Your task to perform on an android device: Empty the shopping cart on target.com. Add "bose soundlink" to the cart on target.com, then select checkout. Image 0: 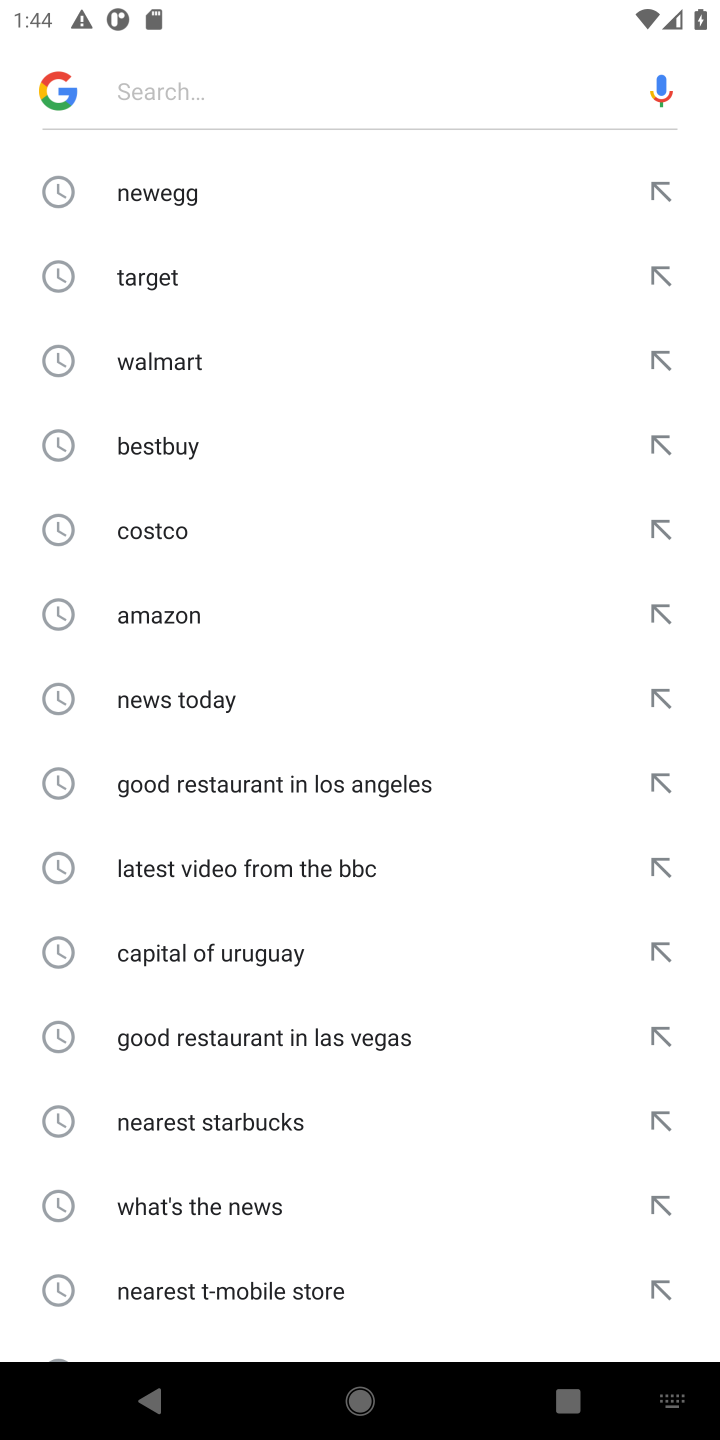
Step 0: press home button
Your task to perform on an android device: Empty the shopping cart on target.com. Add "bose soundlink" to the cart on target.com, then select checkout. Image 1: 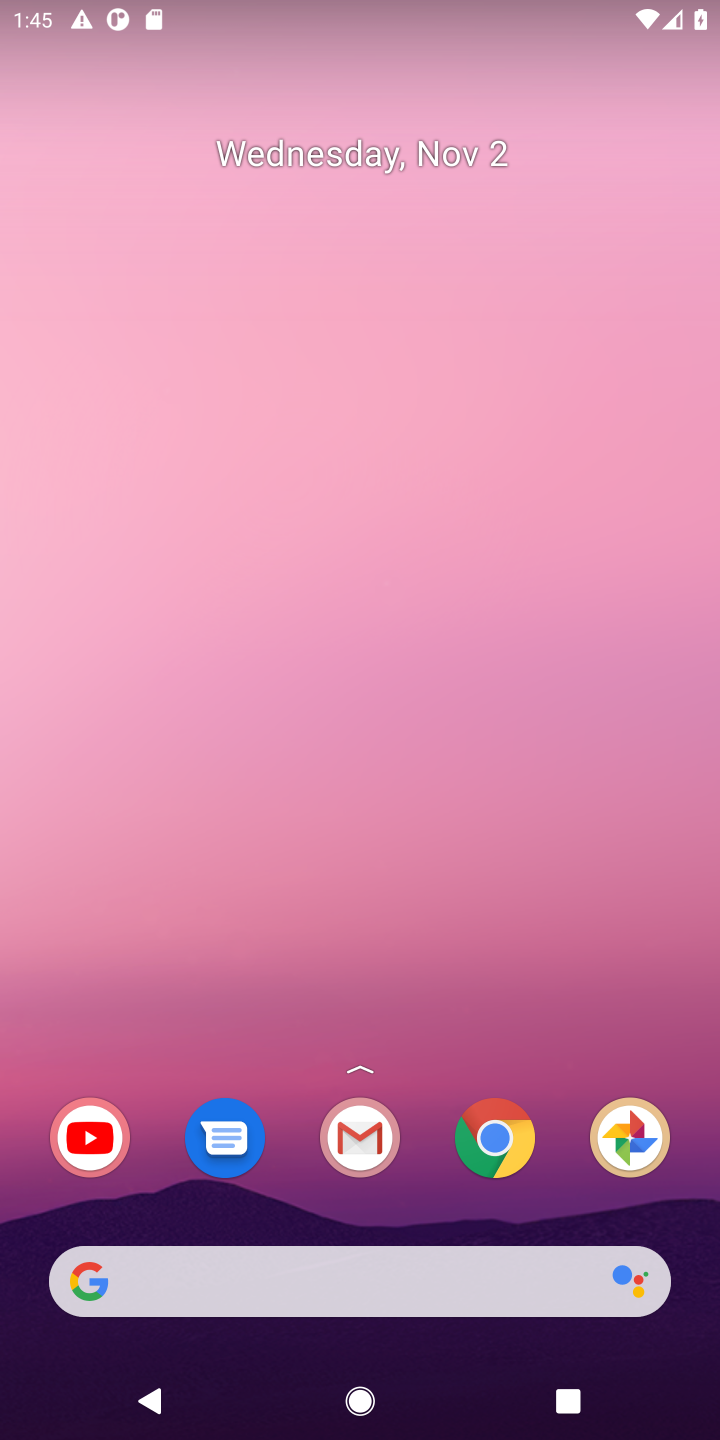
Step 1: click (154, 1277)
Your task to perform on an android device: Empty the shopping cart on target.com. Add "bose soundlink" to the cart on target.com, then select checkout. Image 2: 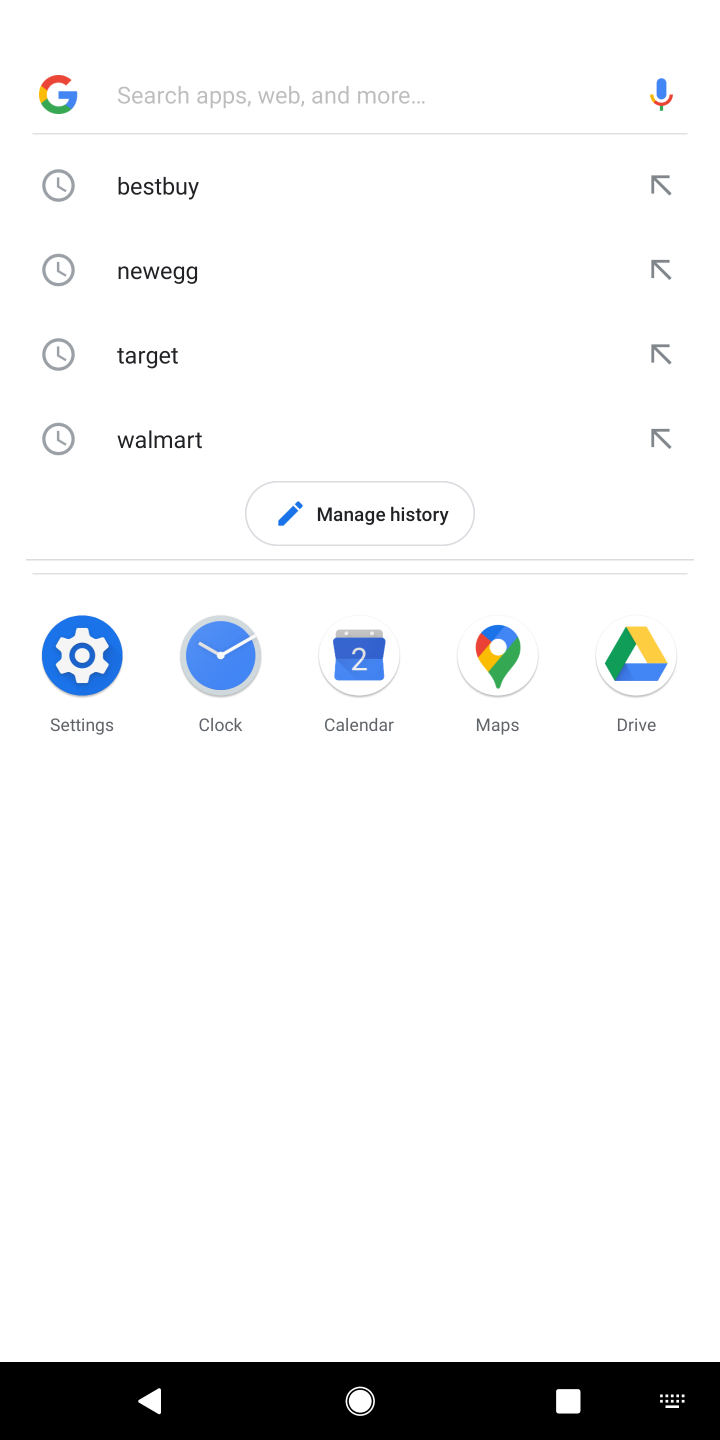
Step 2: type "target.com"
Your task to perform on an android device: Empty the shopping cart on target.com. Add "bose soundlink" to the cart on target.com, then select checkout. Image 3: 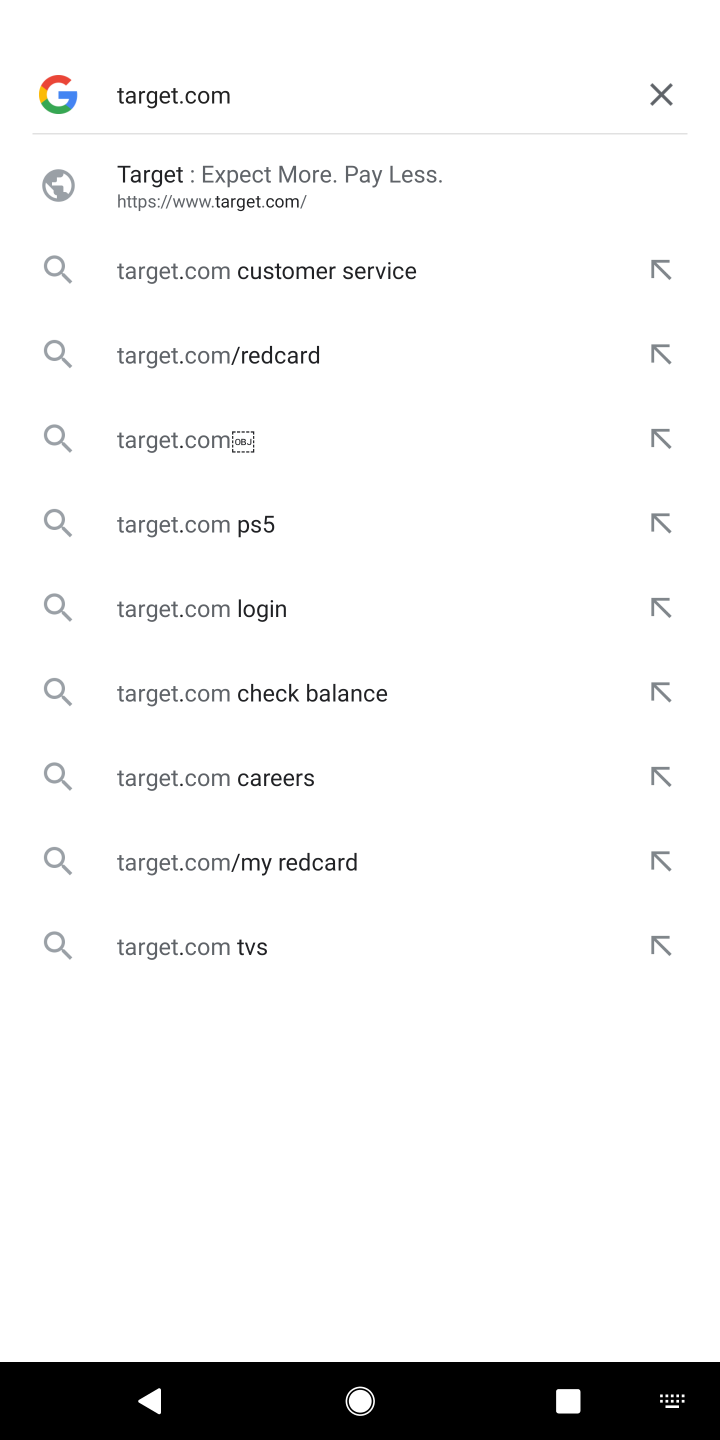
Step 3: press enter
Your task to perform on an android device: Empty the shopping cart on target.com. Add "bose soundlink" to the cart on target.com, then select checkout. Image 4: 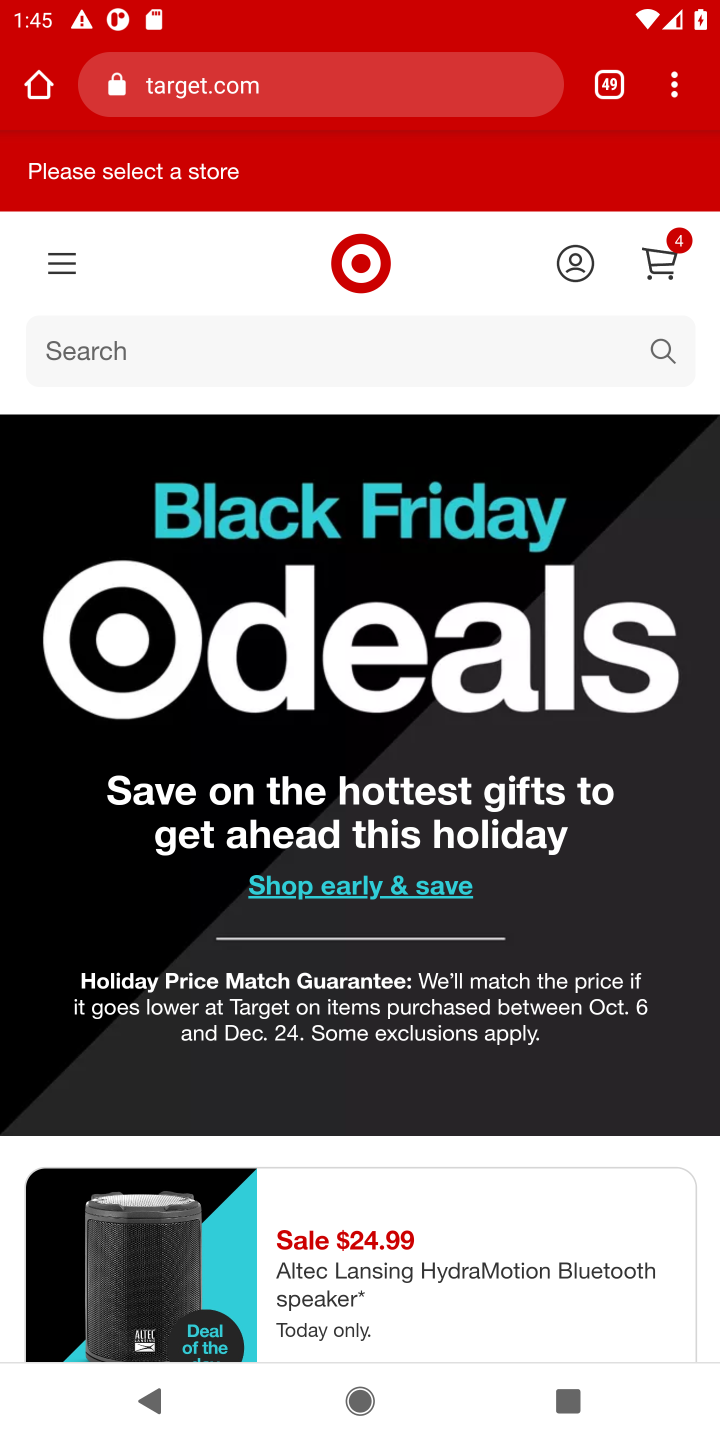
Step 4: click (662, 244)
Your task to perform on an android device: Empty the shopping cart on target.com. Add "bose soundlink" to the cart on target.com, then select checkout. Image 5: 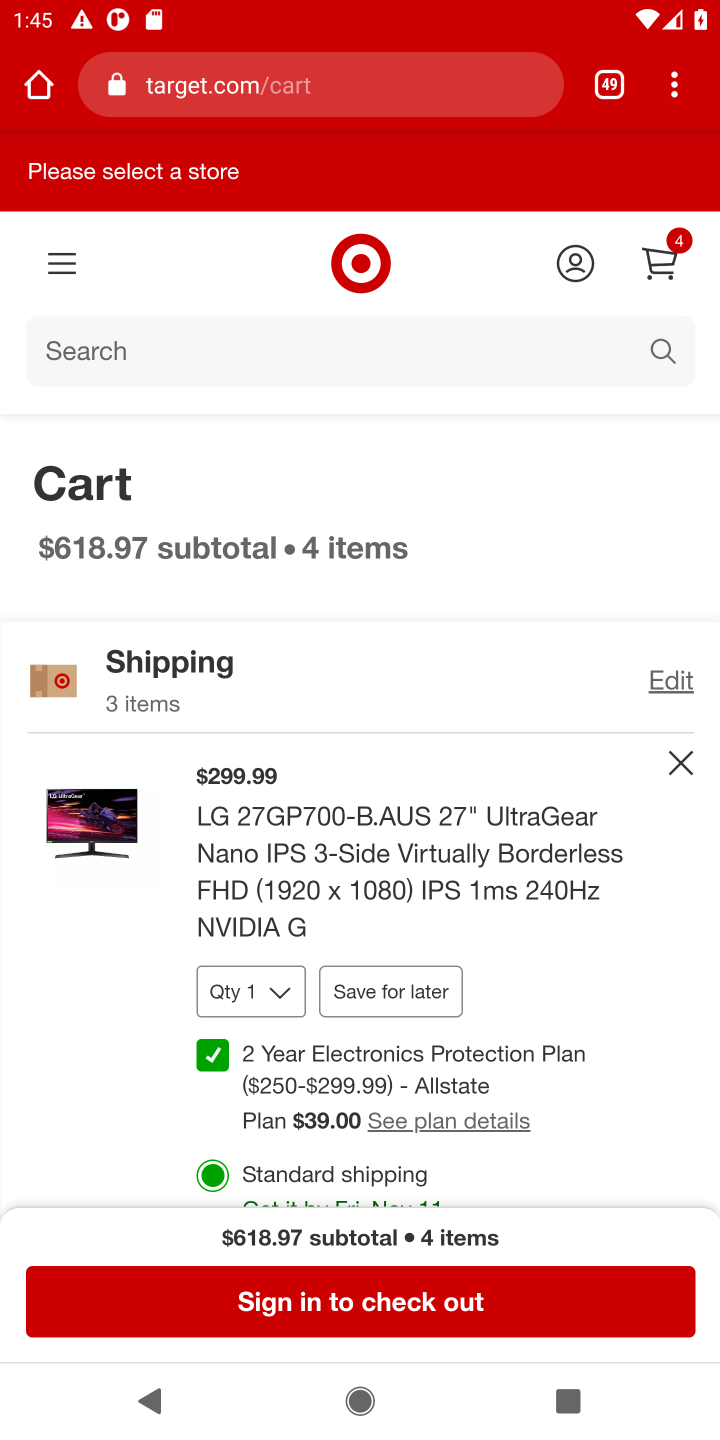
Step 5: click (680, 771)
Your task to perform on an android device: Empty the shopping cart on target.com. Add "bose soundlink" to the cart on target.com, then select checkout. Image 6: 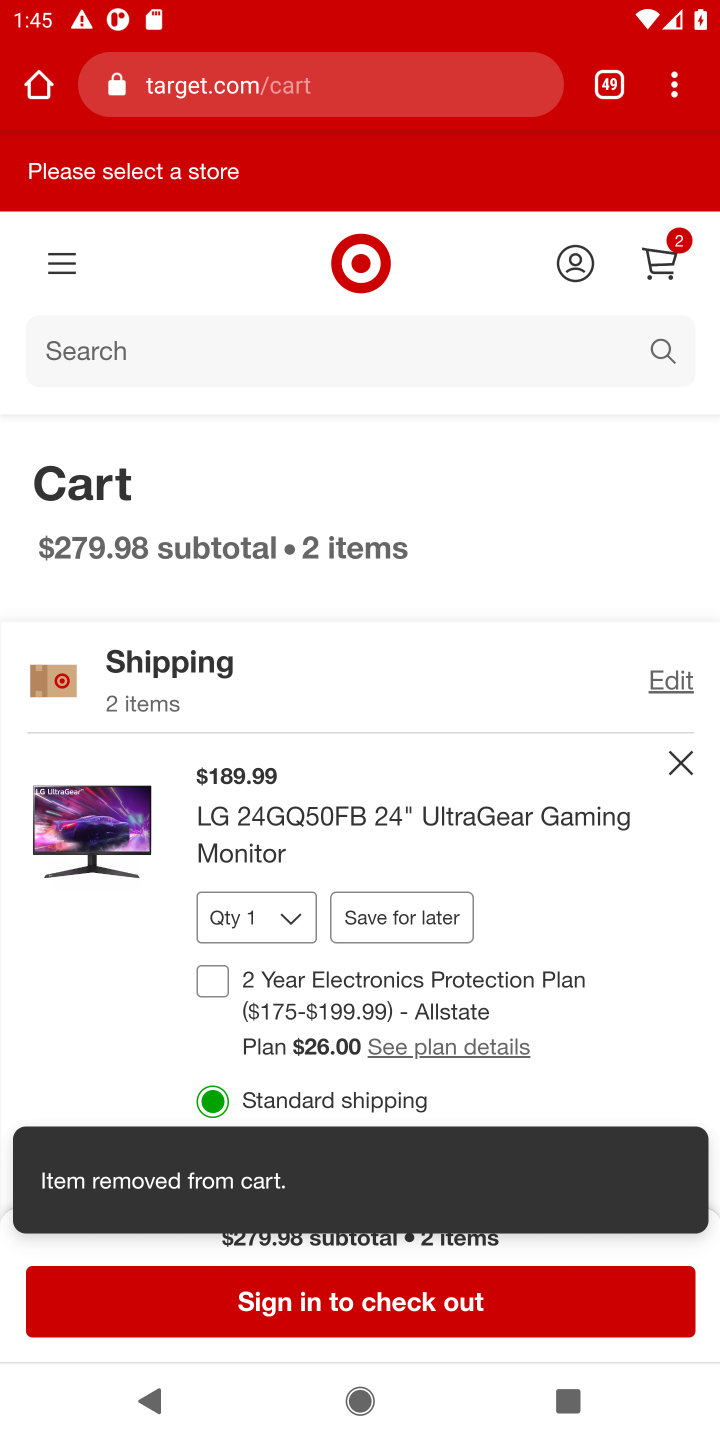
Step 6: click (680, 771)
Your task to perform on an android device: Empty the shopping cart on target.com. Add "bose soundlink" to the cart on target.com, then select checkout. Image 7: 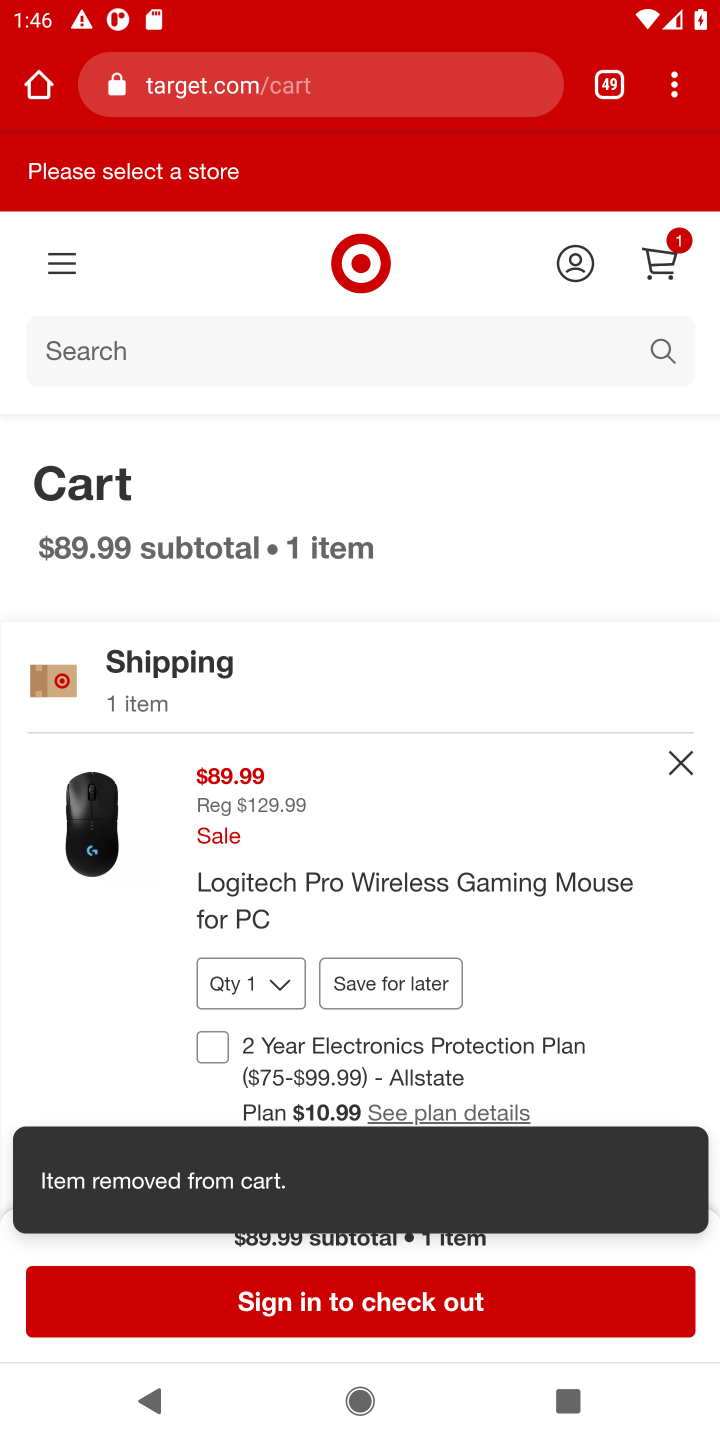
Step 7: click (679, 754)
Your task to perform on an android device: Empty the shopping cart on target.com. Add "bose soundlink" to the cart on target.com, then select checkout. Image 8: 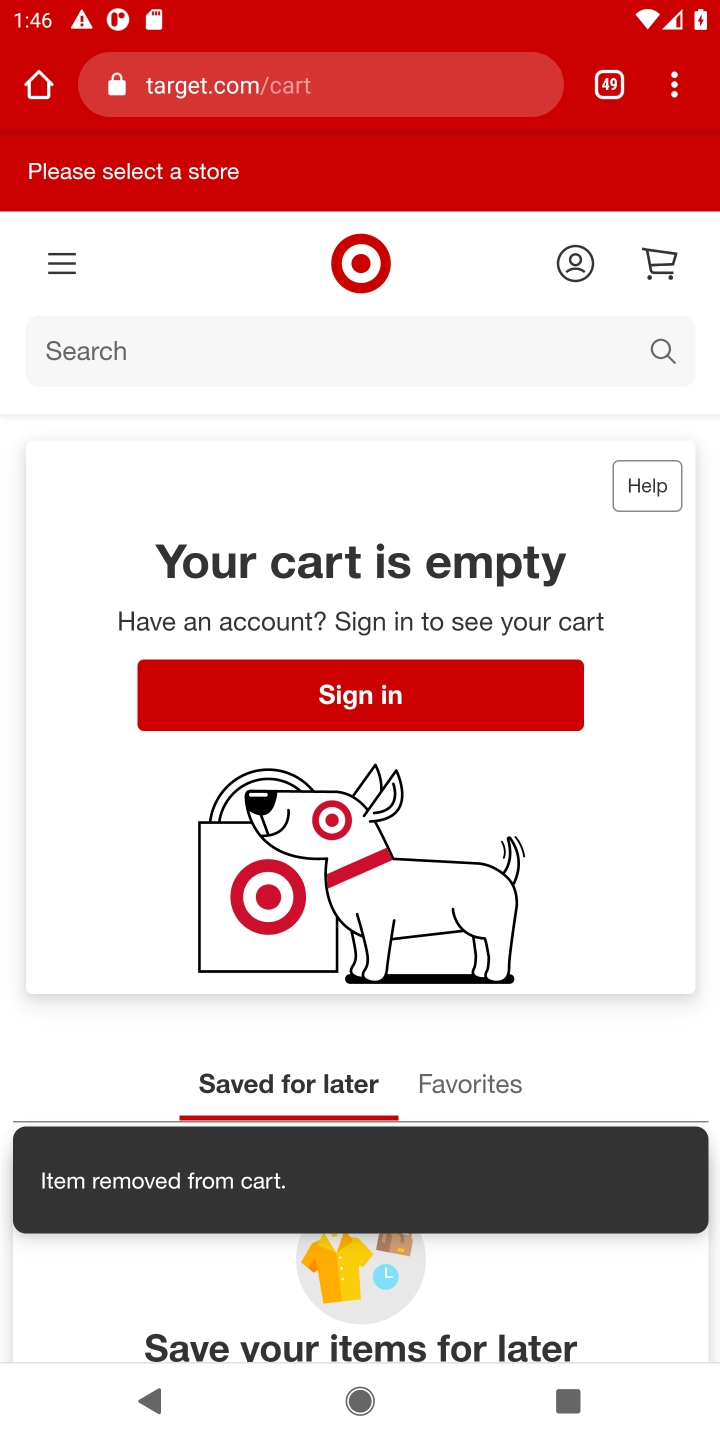
Step 8: click (109, 346)
Your task to perform on an android device: Empty the shopping cart on target.com. Add "bose soundlink" to the cart on target.com, then select checkout. Image 9: 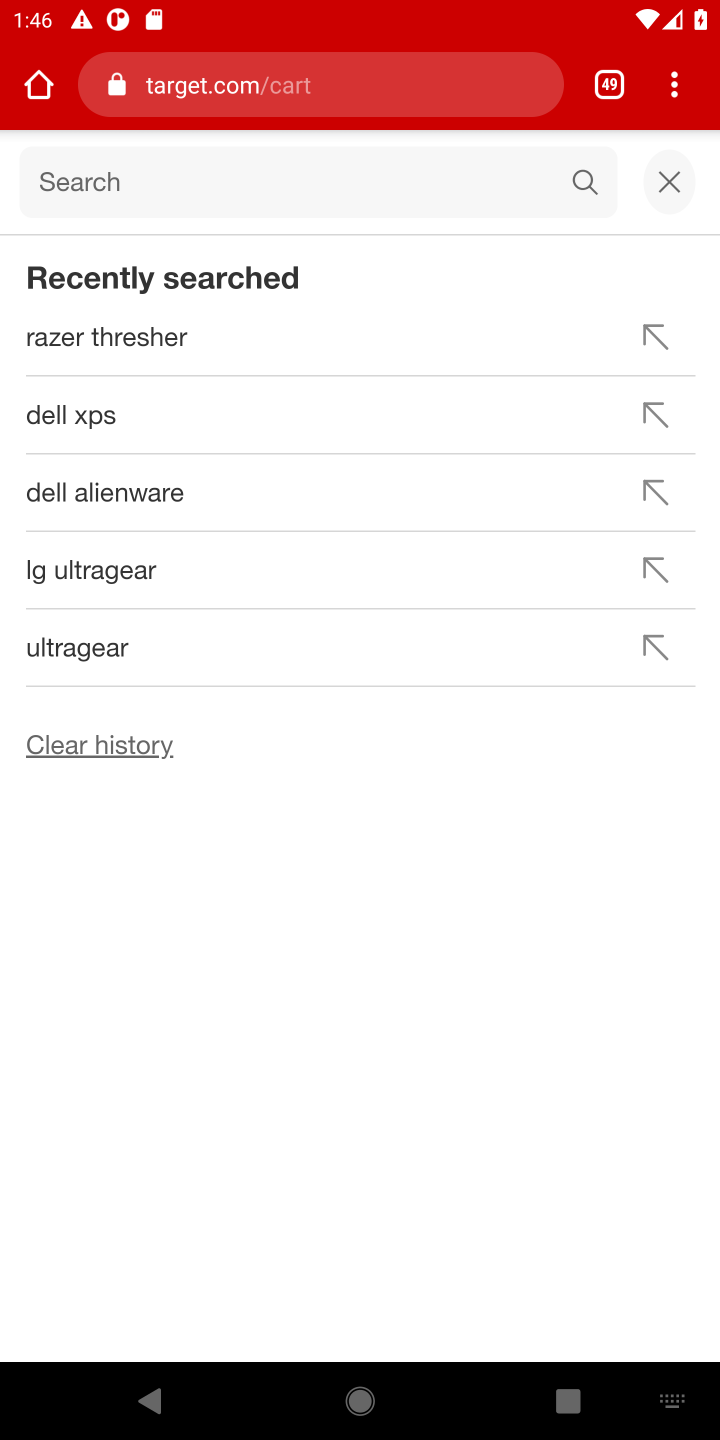
Step 9: type "bose soundlink"
Your task to perform on an android device: Empty the shopping cart on target.com. Add "bose soundlink" to the cart on target.com, then select checkout. Image 10: 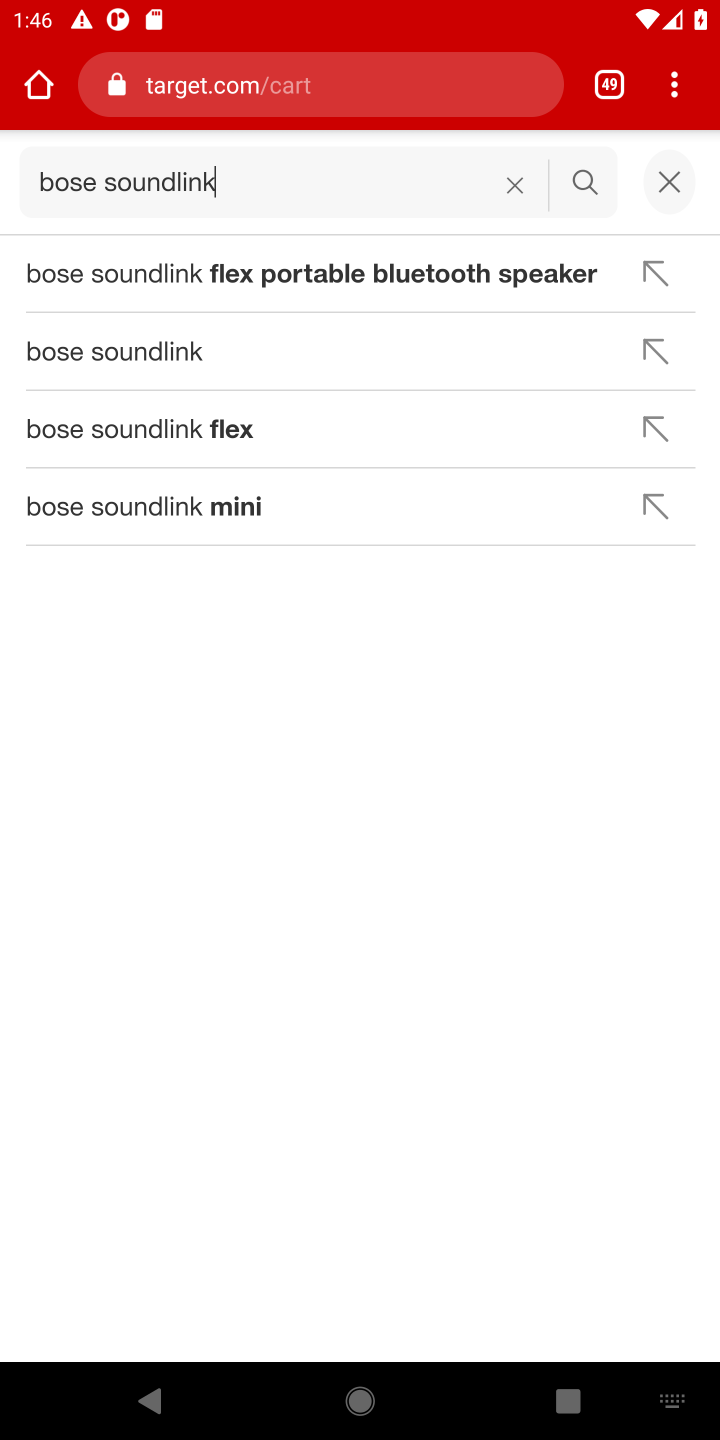
Step 10: click (585, 173)
Your task to perform on an android device: Empty the shopping cart on target.com. Add "bose soundlink" to the cart on target.com, then select checkout. Image 11: 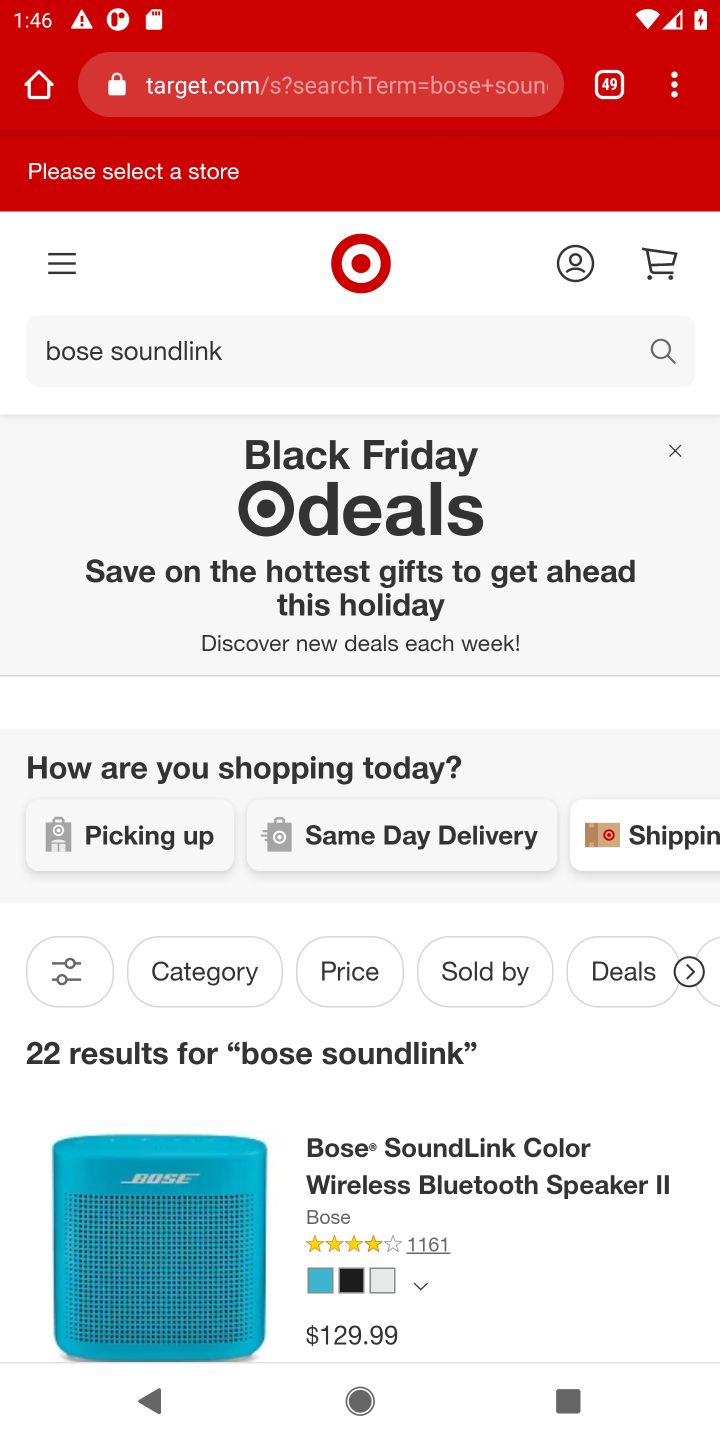
Step 11: drag from (438, 1212) to (435, 744)
Your task to perform on an android device: Empty the shopping cart on target.com. Add "bose soundlink" to the cart on target.com, then select checkout. Image 12: 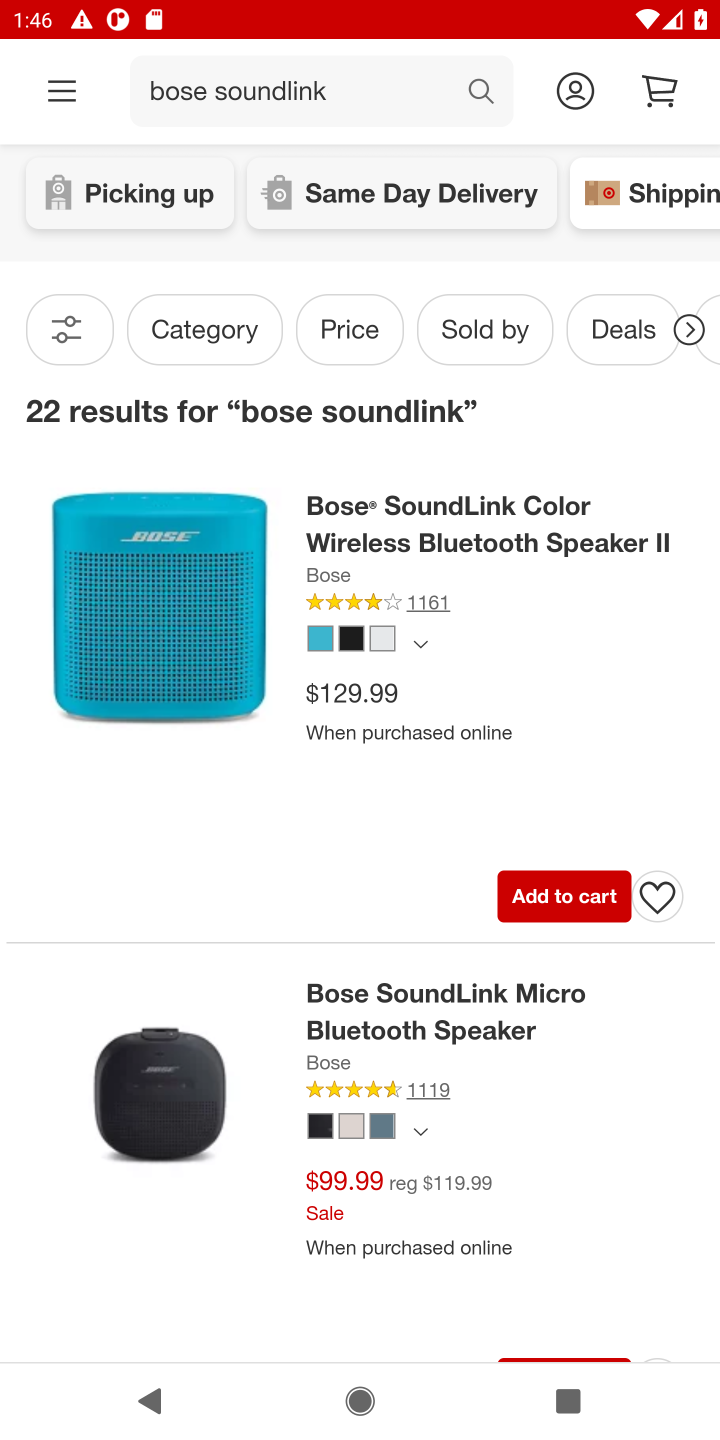
Step 12: click (563, 893)
Your task to perform on an android device: Empty the shopping cart on target.com. Add "bose soundlink" to the cart on target.com, then select checkout. Image 13: 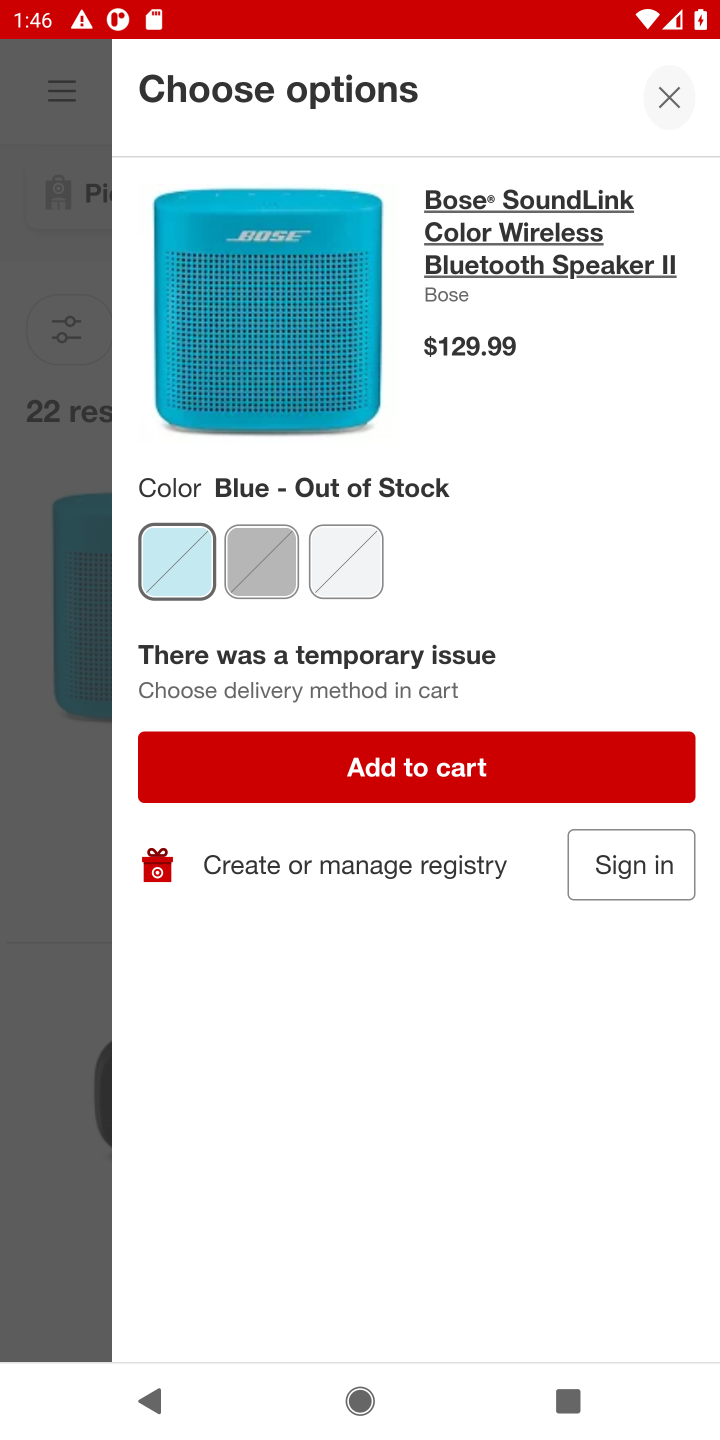
Step 13: click (451, 772)
Your task to perform on an android device: Empty the shopping cart on target.com. Add "bose soundlink" to the cart on target.com, then select checkout. Image 14: 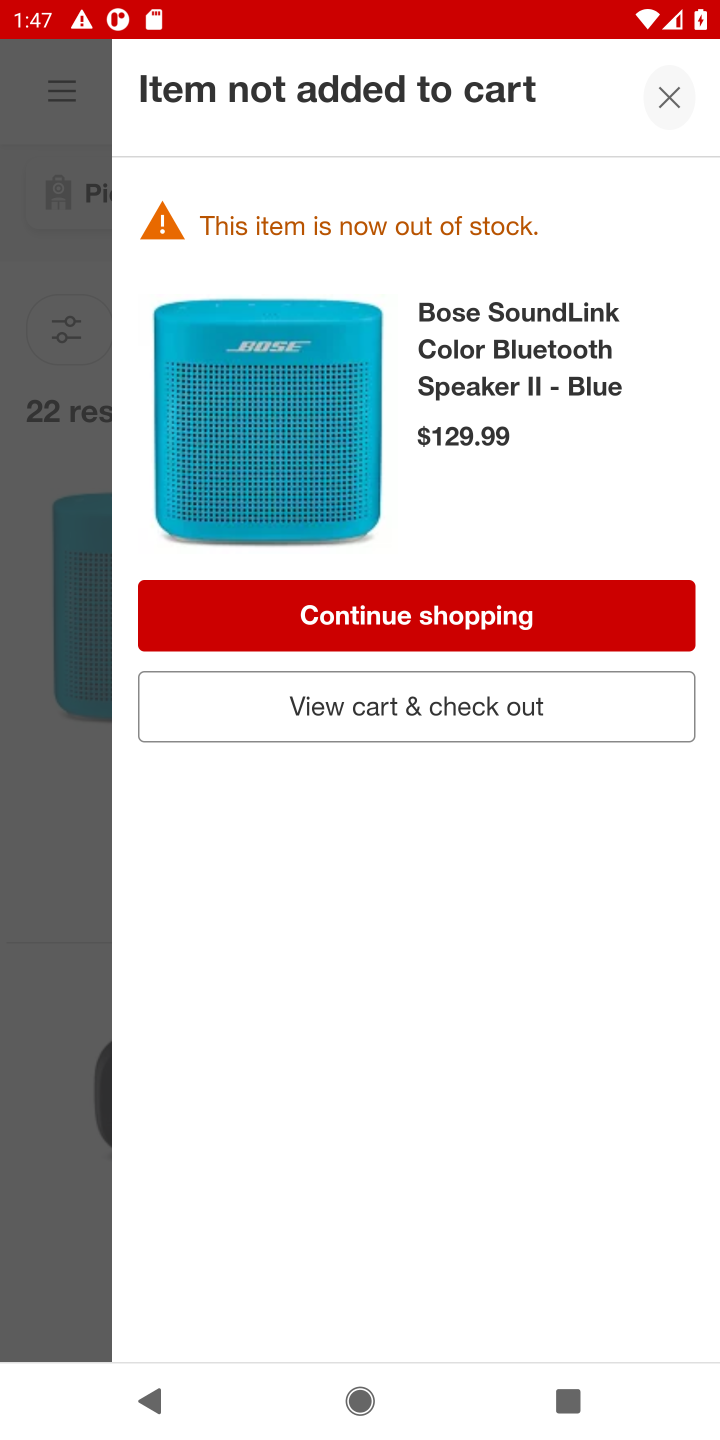
Step 14: click (430, 704)
Your task to perform on an android device: Empty the shopping cart on target.com. Add "bose soundlink" to the cart on target.com, then select checkout. Image 15: 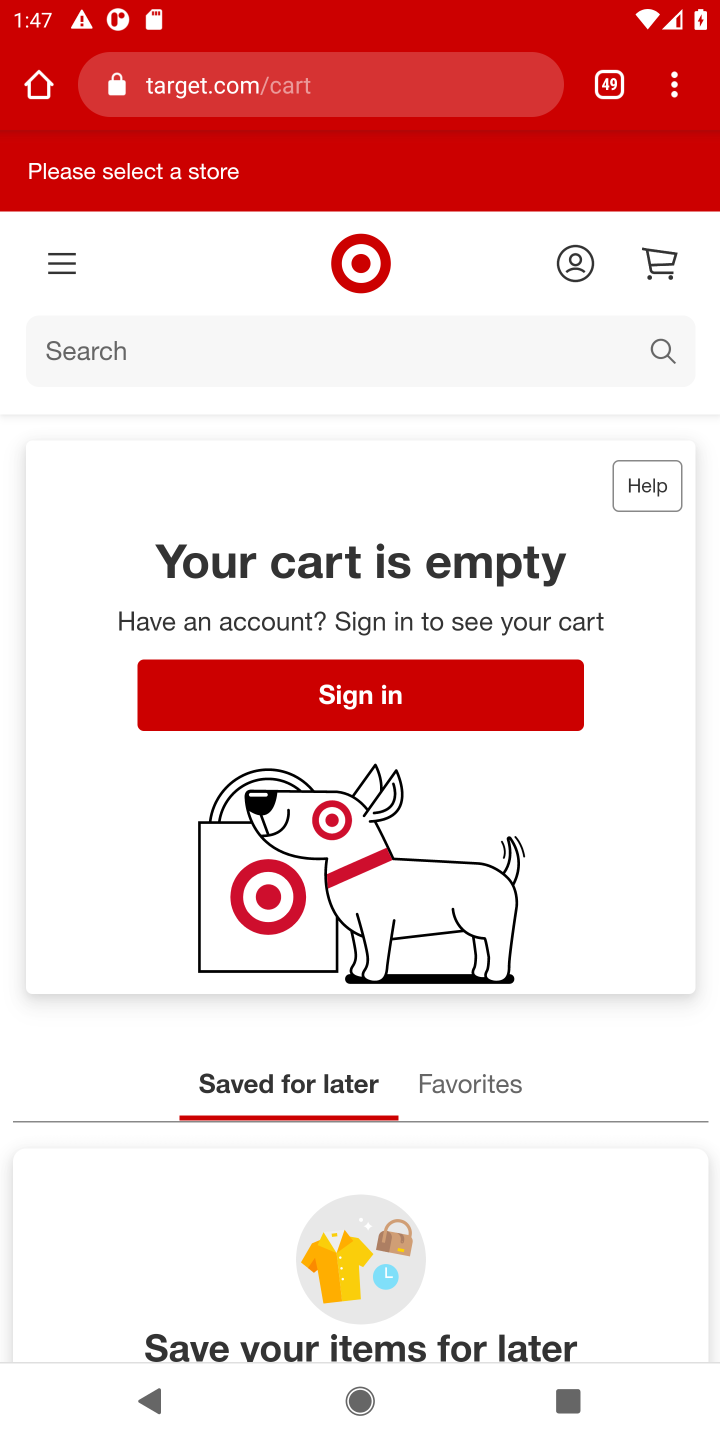
Step 15: task complete